Your task to perform on an android device: turn off priority inbox in the gmail app Image 0: 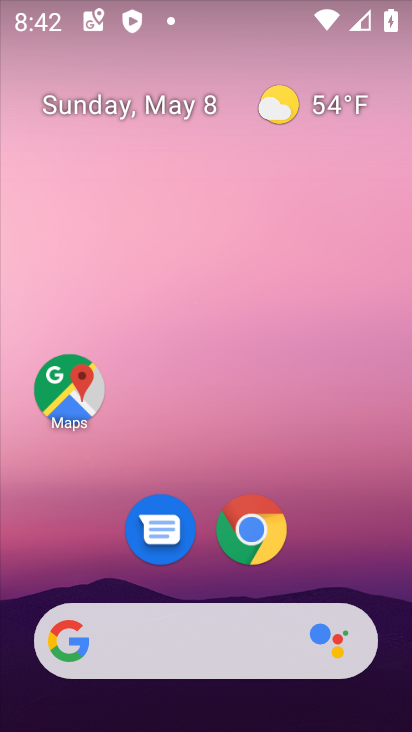
Step 0: drag from (378, 550) to (377, 136)
Your task to perform on an android device: turn off priority inbox in the gmail app Image 1: 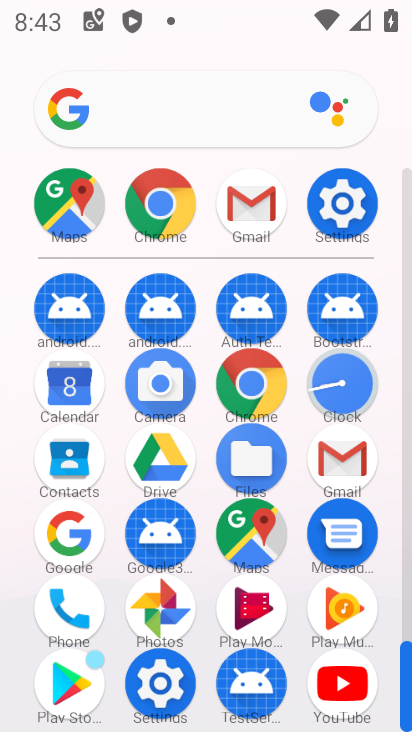
Step 1: click (340, 454)
Your task to perform on an android device: turn off priority inbox in the gmail app Image 2: 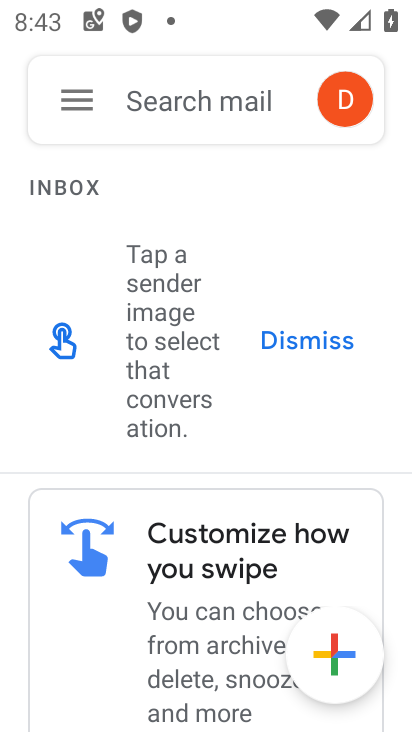
Step 2: click (74, 94)
Your task to perform on an android device: turn off priority inbox in the gmail app Image 3: 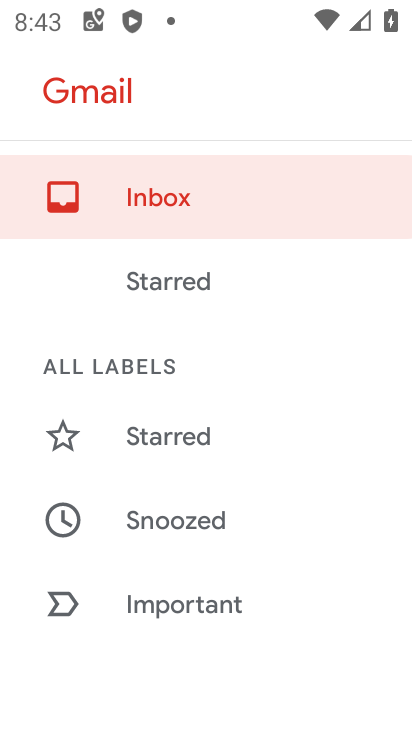
Step 3: drag from (254, 218) to (231, 628)
Your task to perform on an android device: turn off priority inbox in the gmail app Image 4: 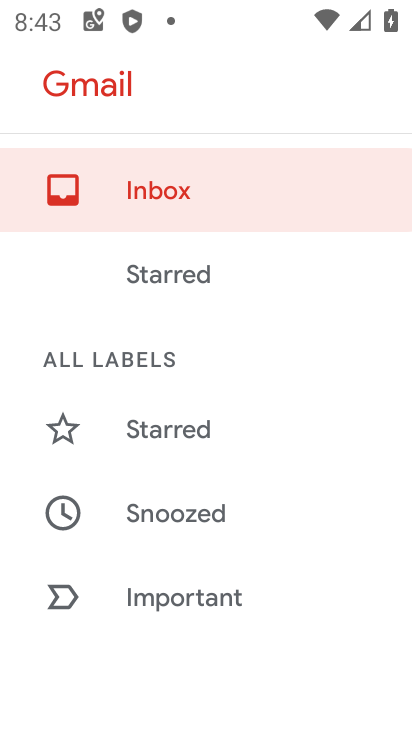
Step 4: drag from (329, 598) to (337, 155)
Your task to perform on an android device: turn off priority inbox in the gmail app Image 5: 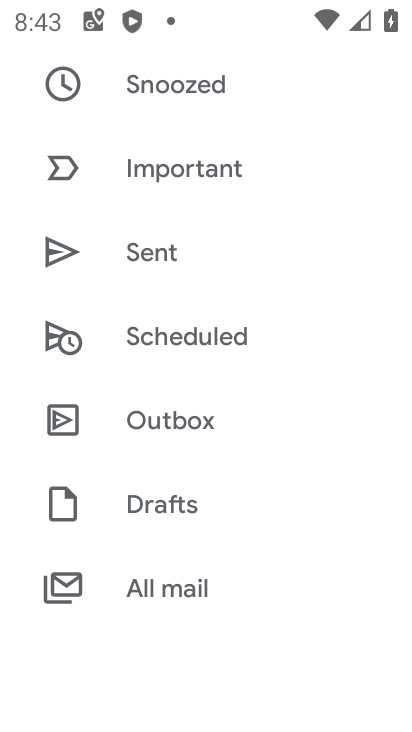
Step 5: drag from (270, 536) to (289, 241)
Your task to perform on an android device: turn off priority inbox in the gmail app Image 6: 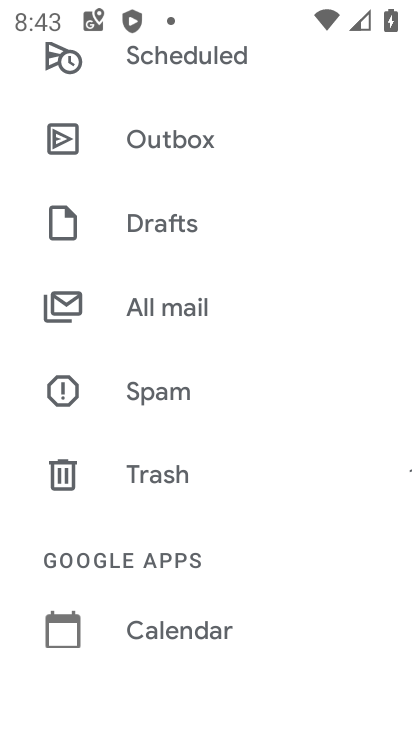
Step 6: drag from (269, 560) to (269, 237)
Your task to perform on an android device: turn off priority inbox in the gmail app Image 7: 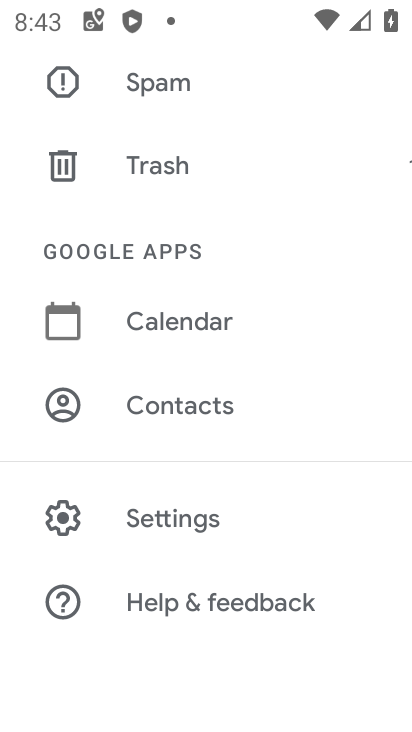
Step 7: click (206, 520)
Your task to perform on an android device: turn off priority inbox in the gmail app Image 8: 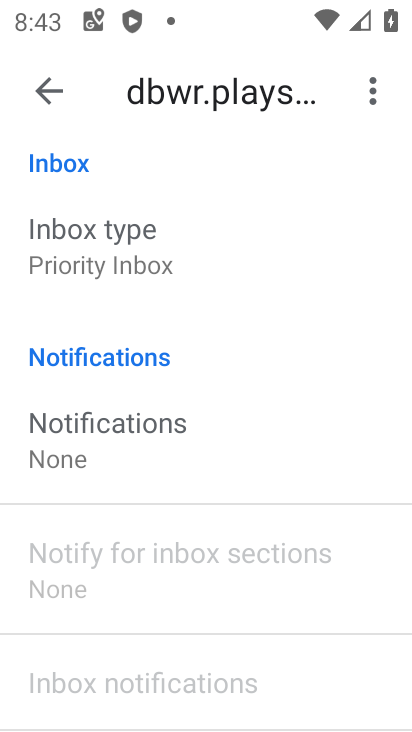
Step 8: click (121, 262)
Your task to perform on an android device: turn off priority inbox in the gmail app Image 9: 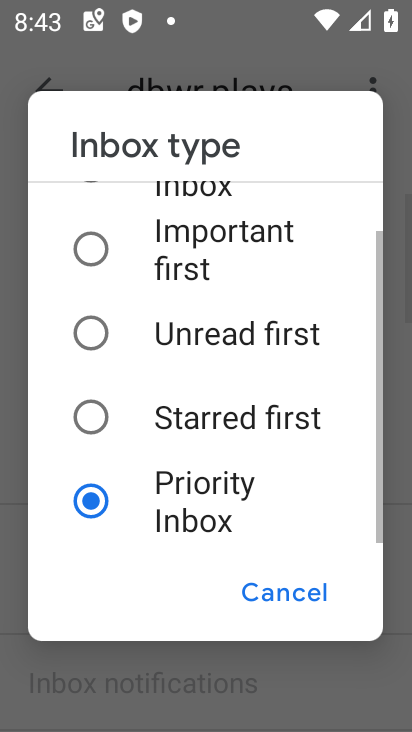
Step 9: drag from (143, 236) to (172, 466)
Your task to perform on an android device: turn off priority inbox in the gmail app Image 10: 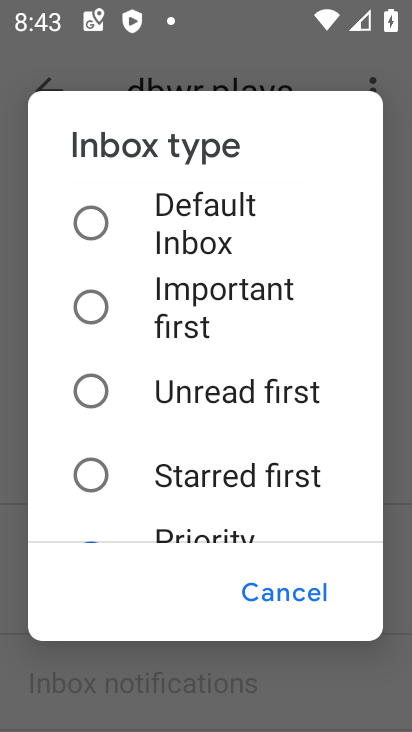
Step 10: click (85, 219)
Your task to perform on an android device: turn off priority inbox in the gmail app Image 11: 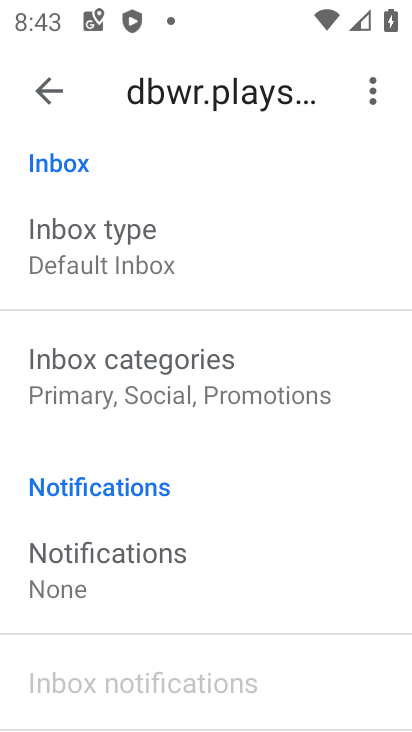
Step 11: task complete